Your task to perform on an android device: check the backup settings in the google photos Image 0: 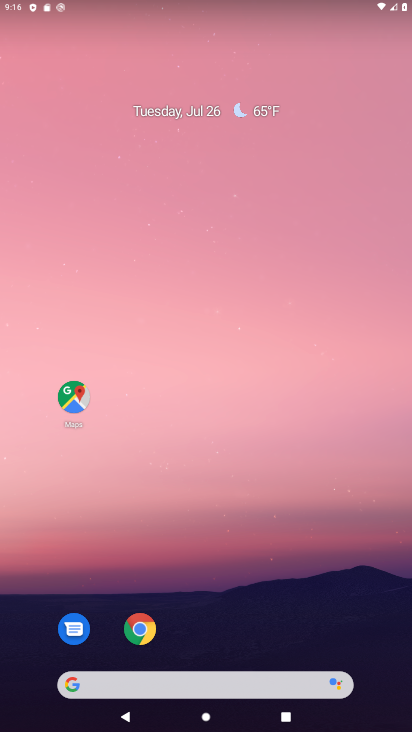
Step 0: drag from (267, 119) to (272, 53)
Your task to perform on an android device: check the backup settings in the google photos Image 1: 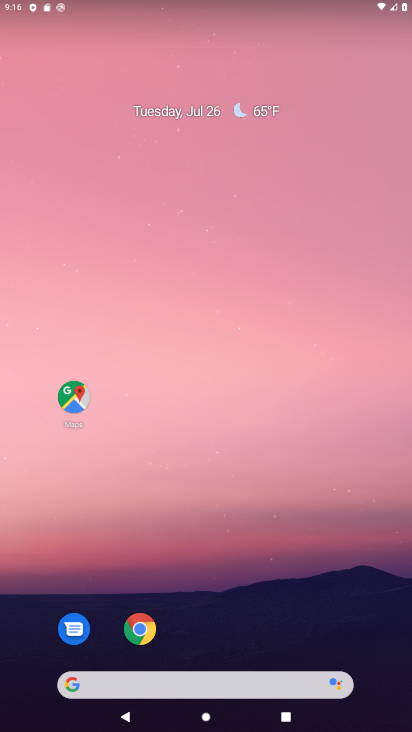
Step 1: drag from (304, 588) to (260, 137)
Your task to perform on an android device: check the backup settings in the google photos Image 2: 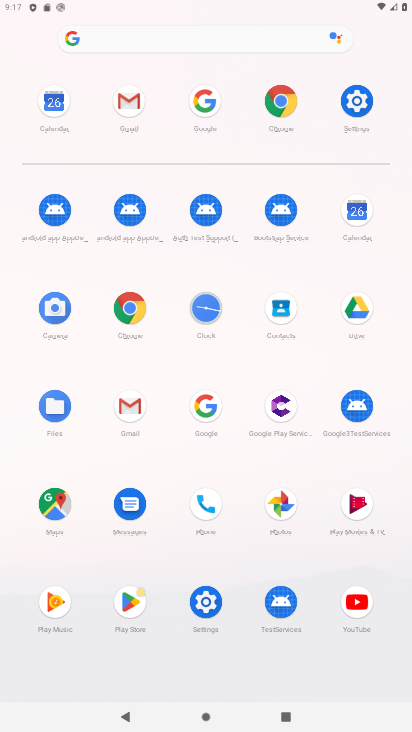
Step 2: click (277, 510)
Your task to perform on an android device: check the backup settings in the google photos Image 3: 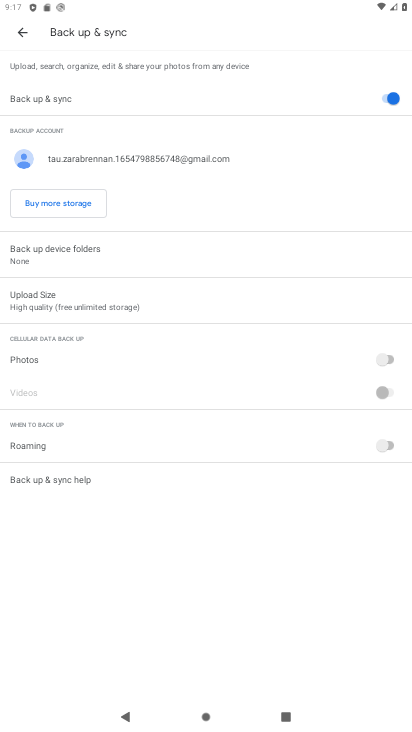
Step 3: task complete